Your task to perform on an android device: Open Chrome and go to settings Image 0: 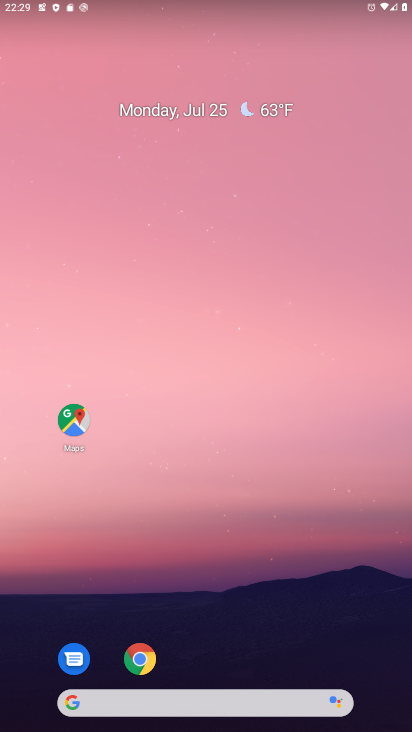
Step 0: click (139, 657)
Your task to perform on an android device: Open Chrome and go to settings Image 1: 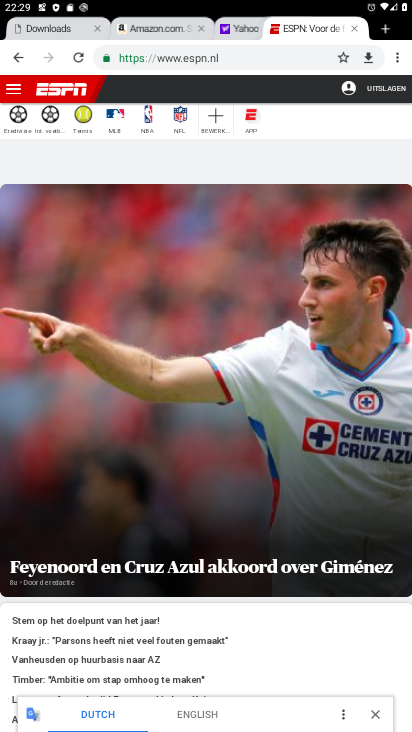
Step 1: click (394, 56)
Your task to perform on an android device: Open Chrome and go to settings Image 2: 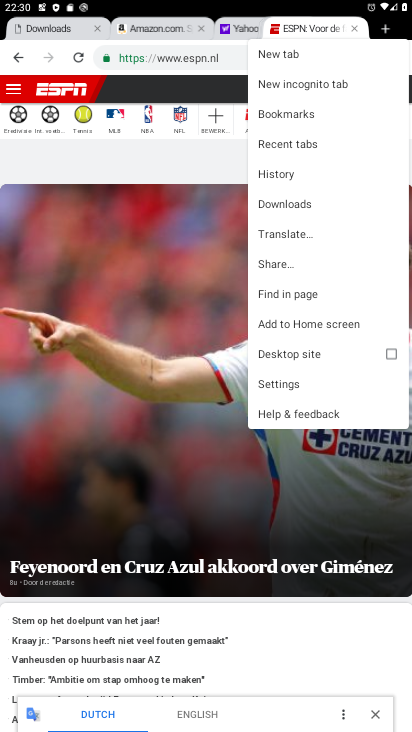
Step 2: click (280, 382)
Your task to perform on an android device: Open Chrome and go to settings Image 3: 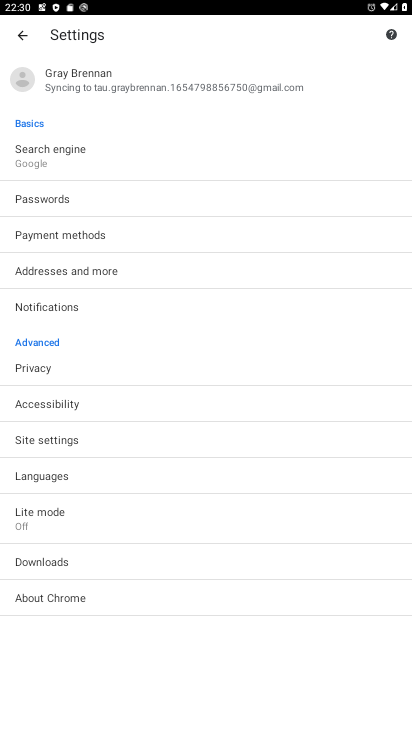
Step 3: task complete